Your task to perform on an android device: Open Amazon Image 0: 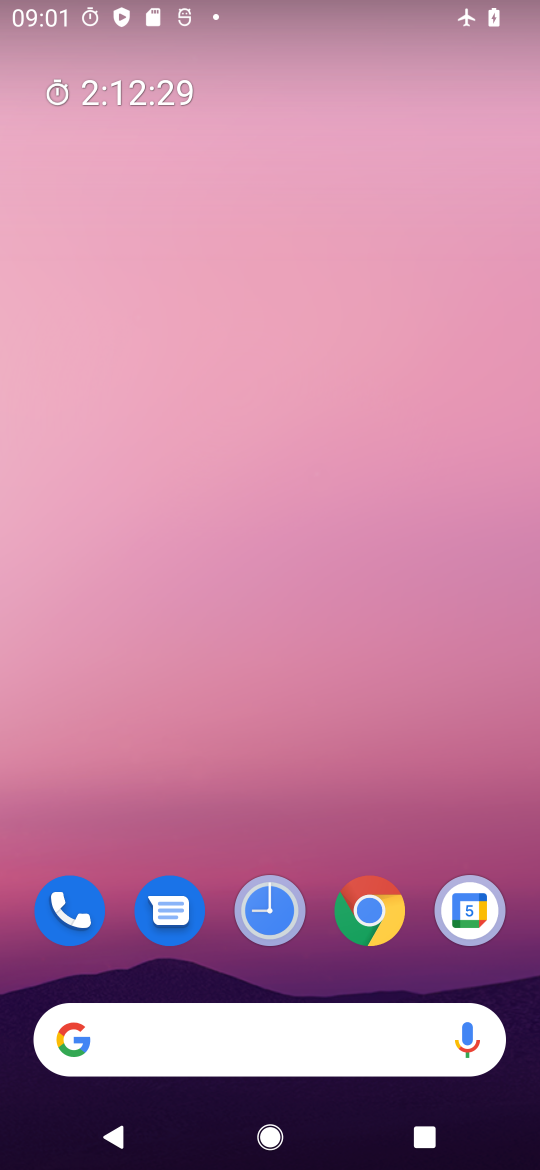
Step 0: drag from (287, 1028) to (292, 3)
Your task to perform on an android device: Open Amazon Image 1: 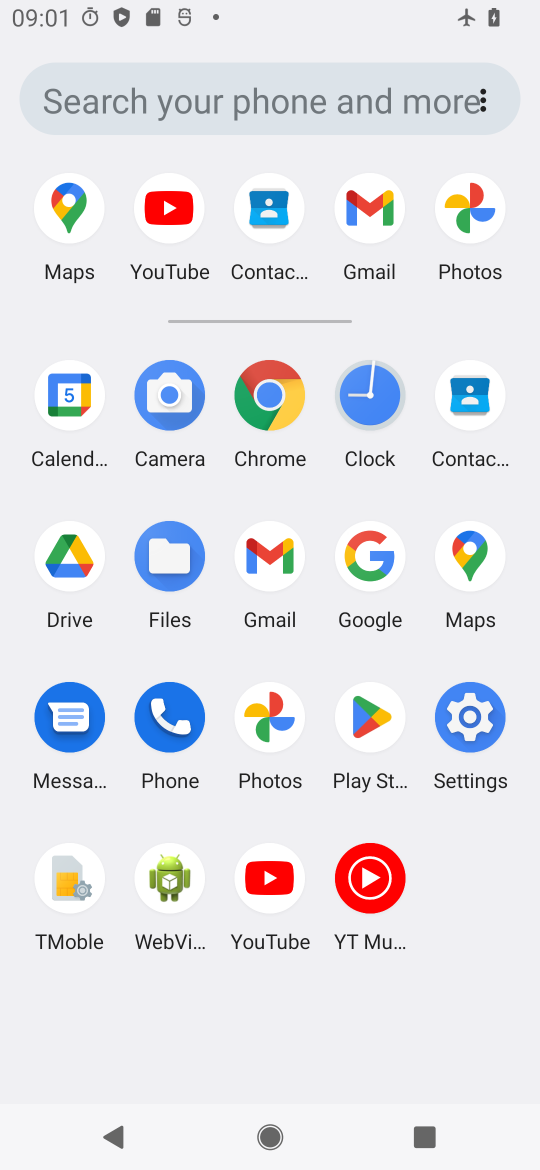
Step 1: click (263, 414)
Your task to perform on an android device: Open Amazon Image 2: 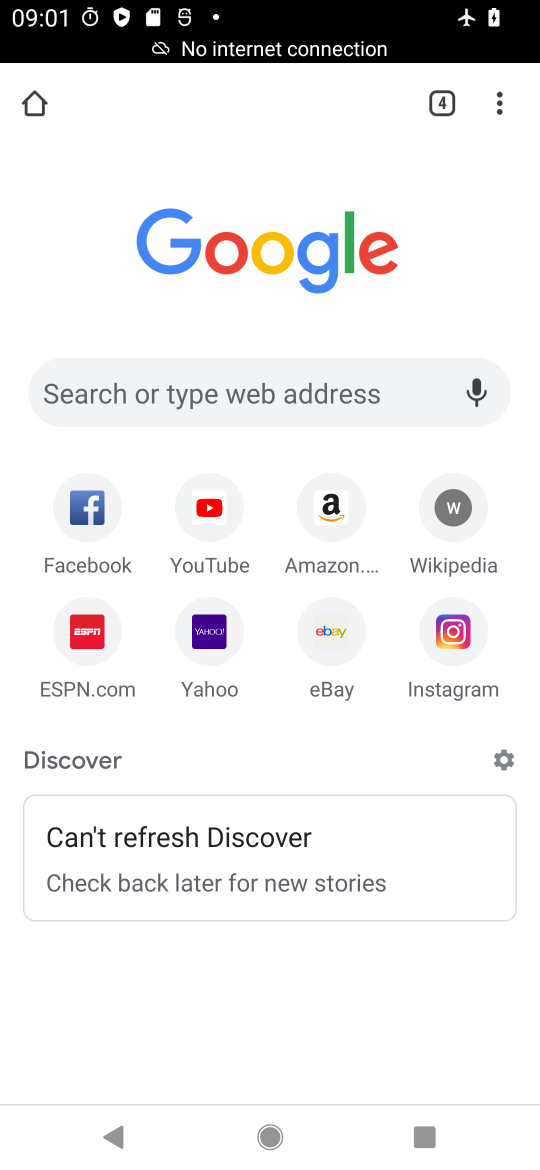
Step 2: click (337, 521)
Your task to perform on an android device: Open Amazon Image 3: 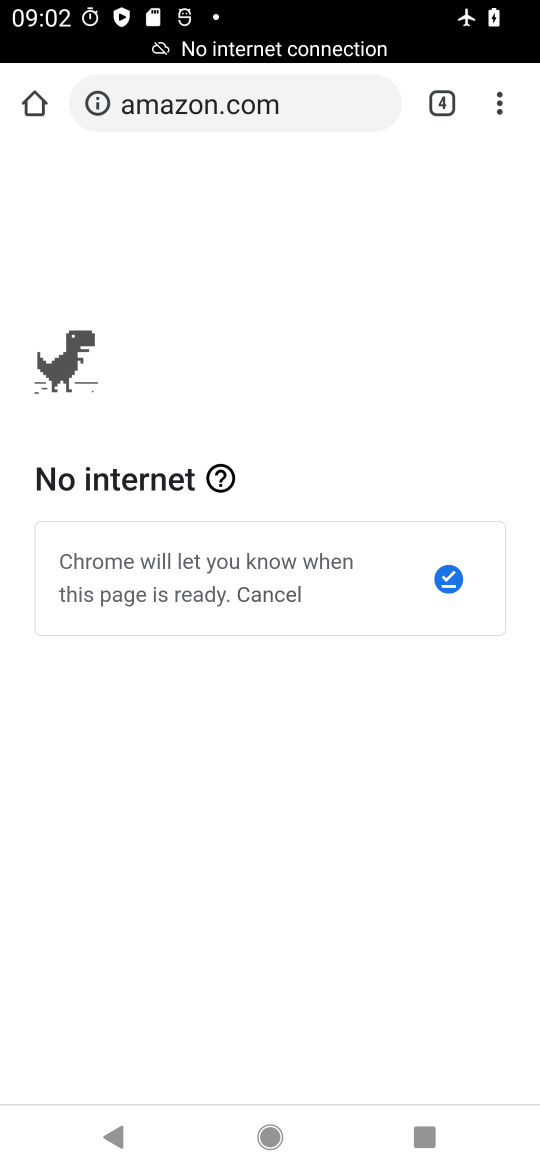
Step 3: task complete